Your task to perform on an android device: delete browsing data in the chrome app Image 0: 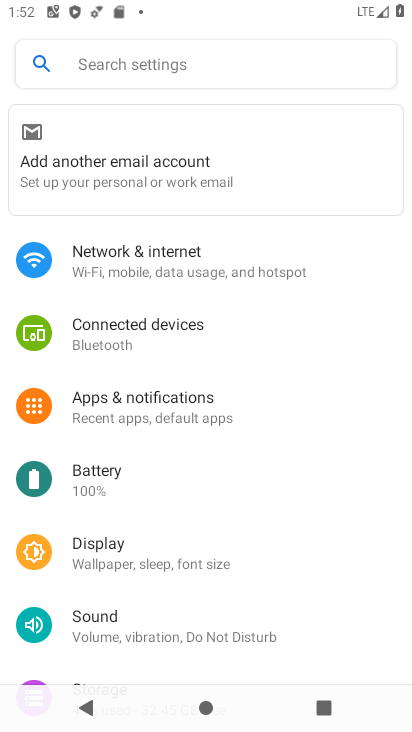
Step 0: press home button
Your task to perform on an android device: delete browsing data in the chrome app Image 1: 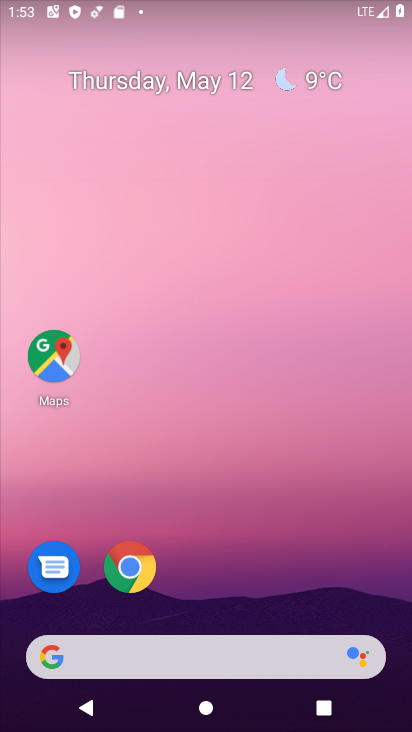
Step 1: click (134, 561)
Your task to perform on an android device: delete browsing data in the chrome app Image 2: 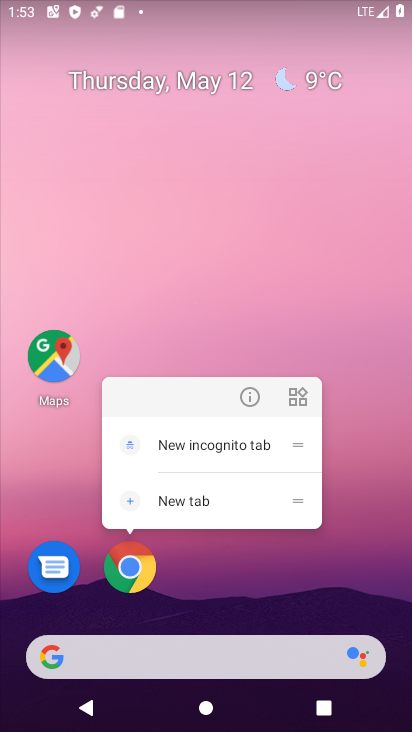
Step 2: click (123, 578)
Your task to perform on an android device: delete browsing data in the chrome app Image 3: 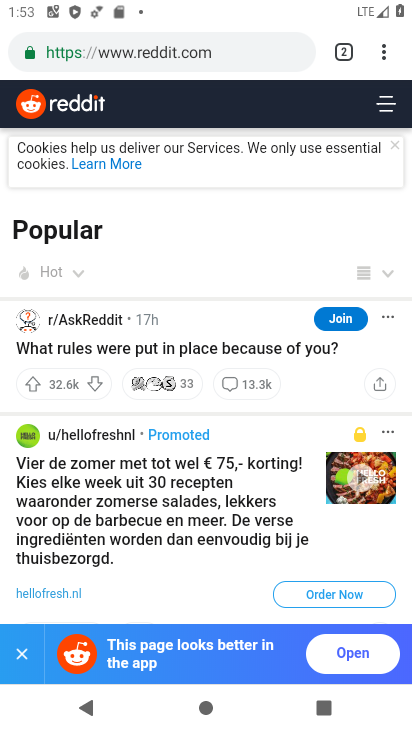
Step 3: click (381, 44)
Your task to perform on an android device: delete browsing data in the chrome app Image 4: 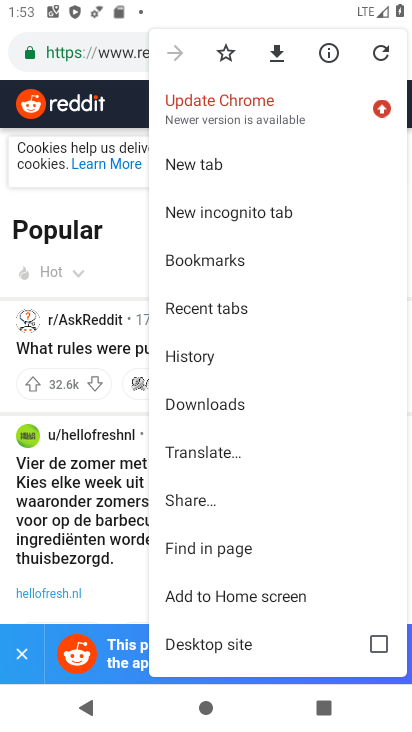
Step 4: drag from (231, 557) to (307, 376)
Your task to perform on an android device: delete browsing data in the chrome app Image 5: 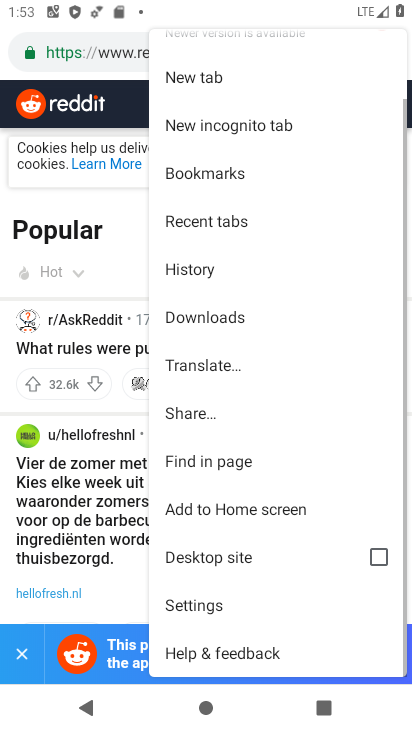
Step 5: click (221, 281)
Your task to perform on an android device: delete browsing data in the chrome app Image 6: 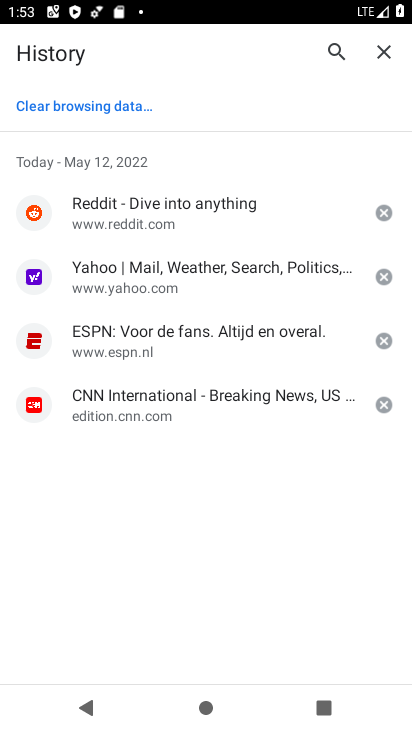
Step 6: click (103, 117)
Your task to perform on an android device: delete browsing data in the chrome app Image 7: 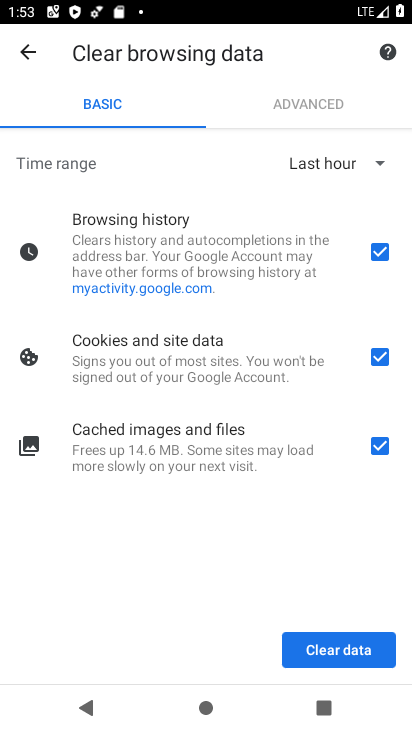
Step 7: click (332, 660)
Your task to perform on an android device: delete browsing data in the chrome app Image 8: 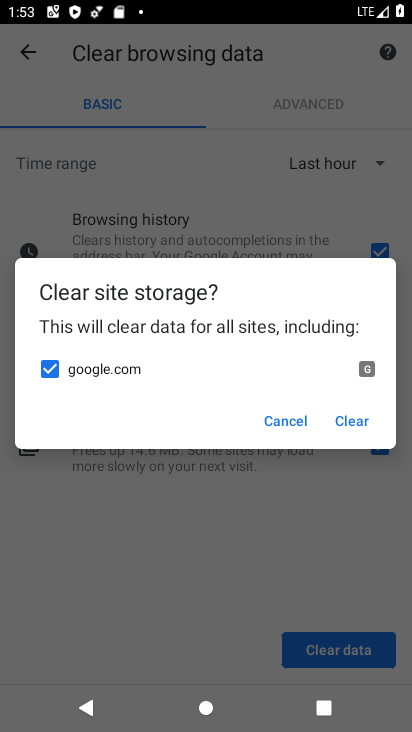
Step 8: click (352, 429)
Your task to perform on an android device: delete browsing data in the chrome app Image 9: 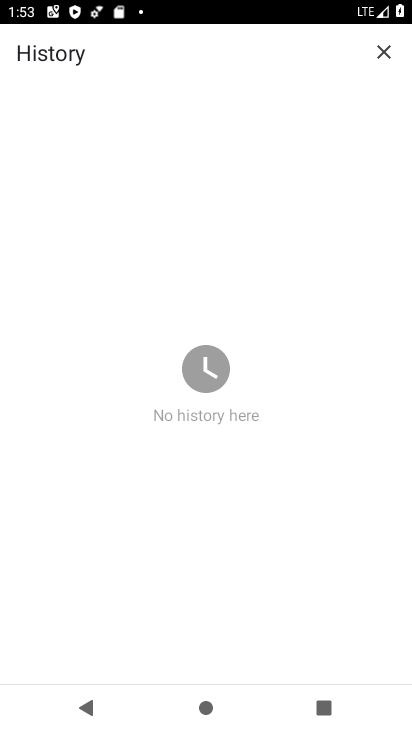
Step 9: task complete